Your task to perform on an android device: Set an alarm for 12pm Image 0: 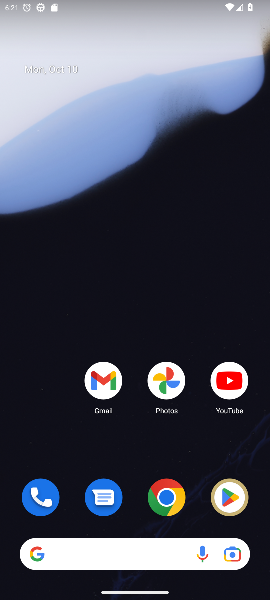
Step 0: drag from (109, 487) to (148, 139)
Your task to perform on an android device: Set an alarm for 12pm Image 1: 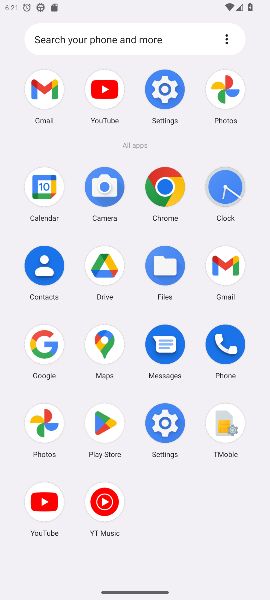
Step 1: click (32, 341)
Your task to perform on an android device: Set an alarm for 12pm Image 2: 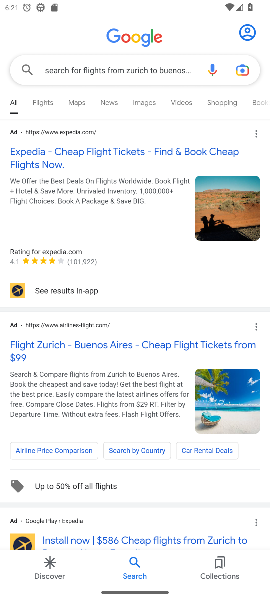
Step 2: click (183, 69)
Your task to perform on an android device: Set an alarm for 12pm Image 3: 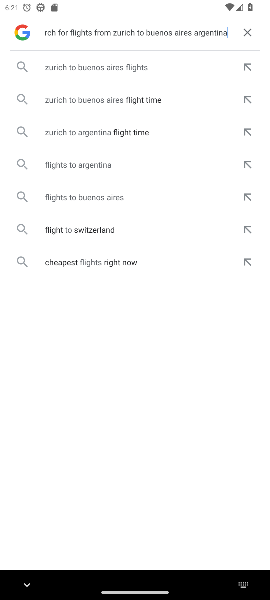
Step 3: click (251, 27)
Your task to perform on an android device: Set an alarm for 12pm Image 4: 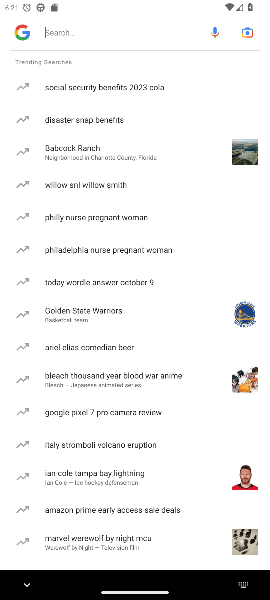
Step 4: press home button
Your task to perform on an android device: Set an alarm for 12pm Image 5: 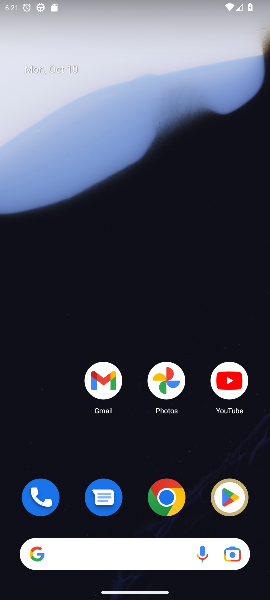
Step 5: drag from (108, 456) to (145, 113)
Your task to perform on an android device: Set an alarm for 12pm Image 6: 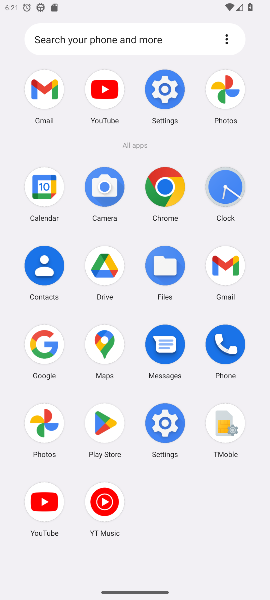
Step 6: click (216, 177)
Your task to perform on an android device: Set an alarm for 12pm Image 7: 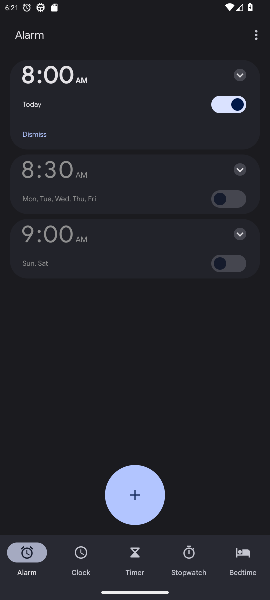
Step 7: click (141, 491)
Your task to perform on an android device: Set an alarm for 12pm Image 8: 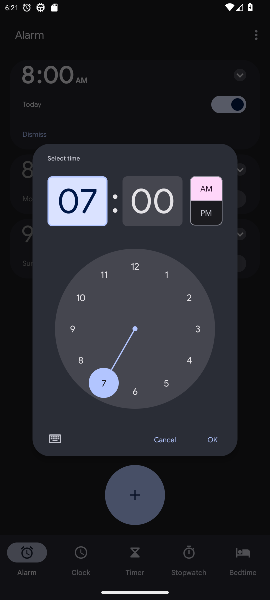
Step 8: click (135, 270)
Your task to perform on an android device: Set an alarm for 12pm Image 9: 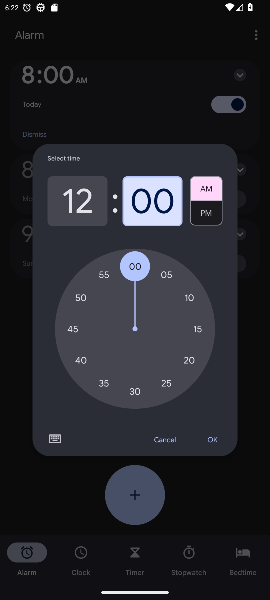
Step 9: click (202, 220)
Your task to perform on an android device: Set an alarm for 12pm Image 10: 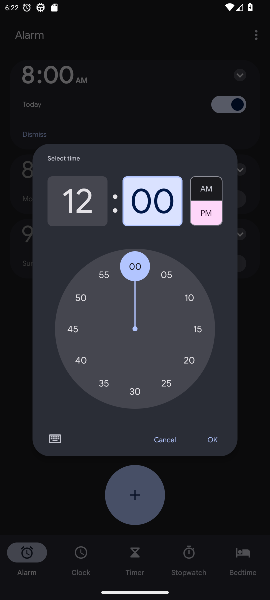
Step 10: click (210, 445)
Your task to perform on an android device: Set an alarm for 12pm Image 11: 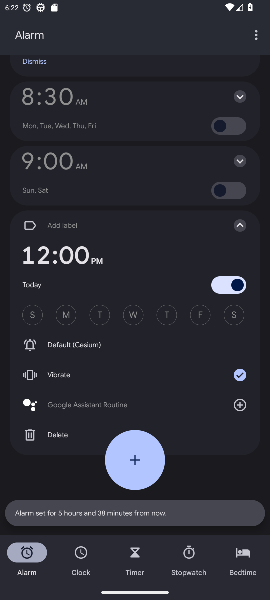
Step 11: task complete